Your task to perform on an android device: change the clock style Image 0: 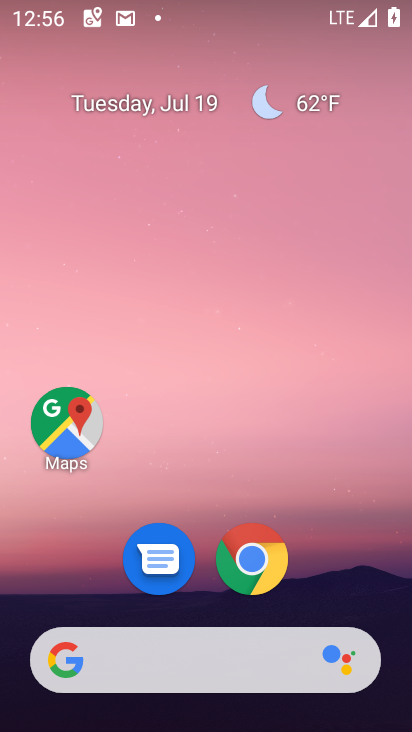
Step 0: drag from (202, 647) to (224, 236)
Your task to perform on an android device: change the clock style Image 1: 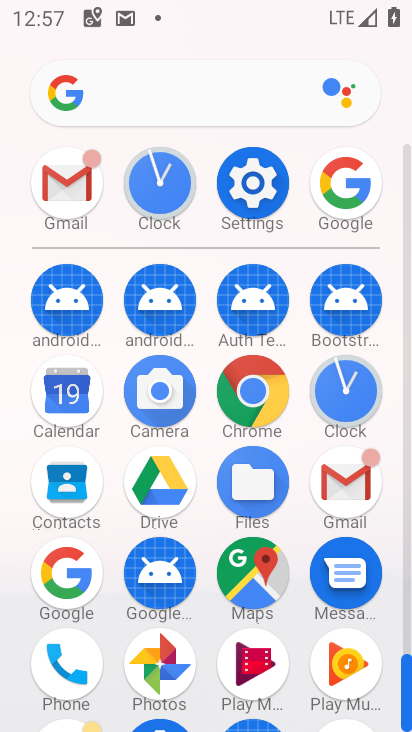
Step 1: click (367, 398)
Your task to perform on an android device: change the clock style Image 2: 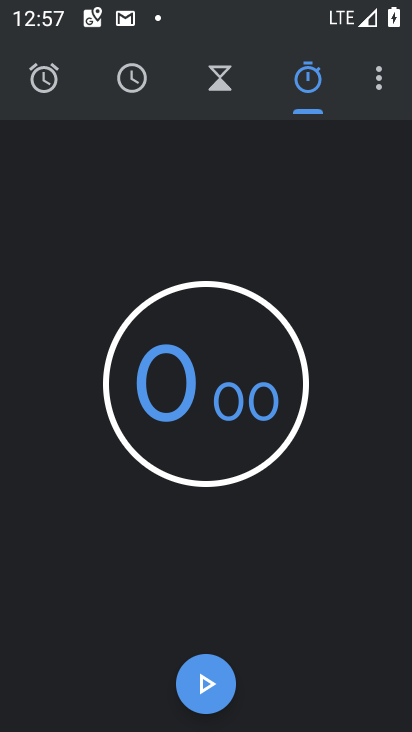
Step 2: click (373, 78)
Your task to perform on an android device: change the clock style Image 3: 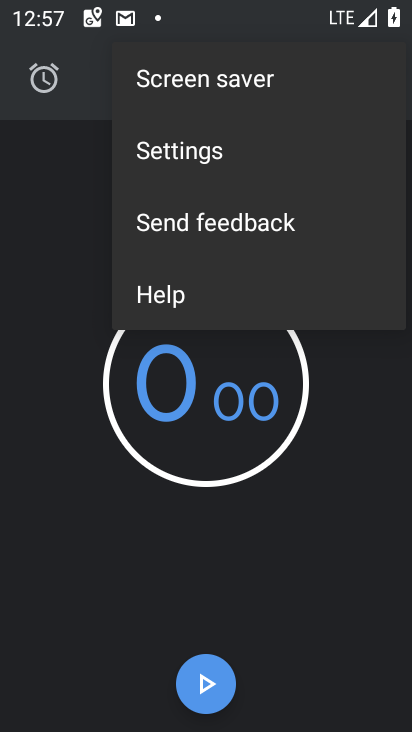
Step 3: click (236, 164)
Your task to perform on an android device: change the clock style Image 4: 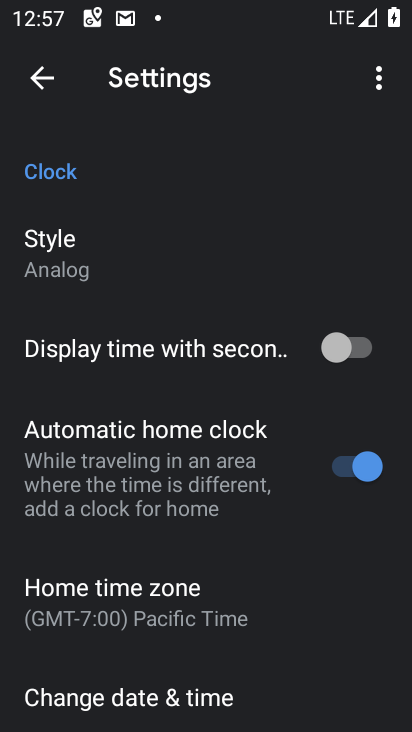
Step 4: task complete